Your task to perform on an android device: Open network settings Image 0: 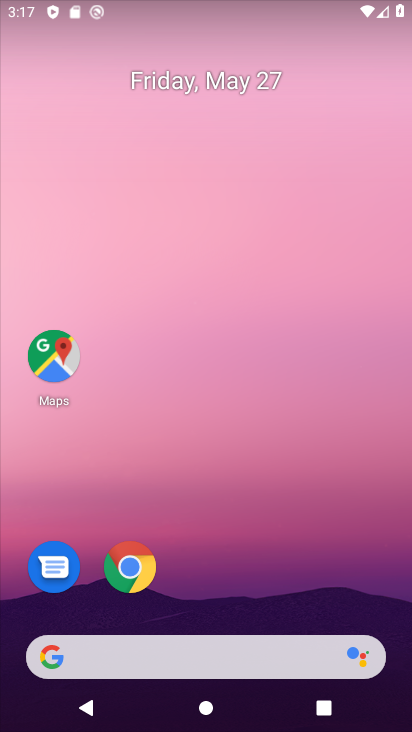
Step 0: drag from (379, 609) to (319, 70)
Your task to perform on an android device: Open network settings Image 1: 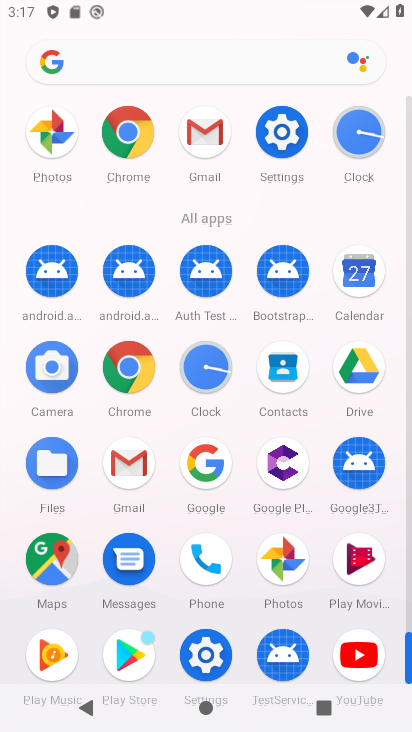
Step 1: click (203, 652)
Your task to perform on an android device: Open network settings Image 2: 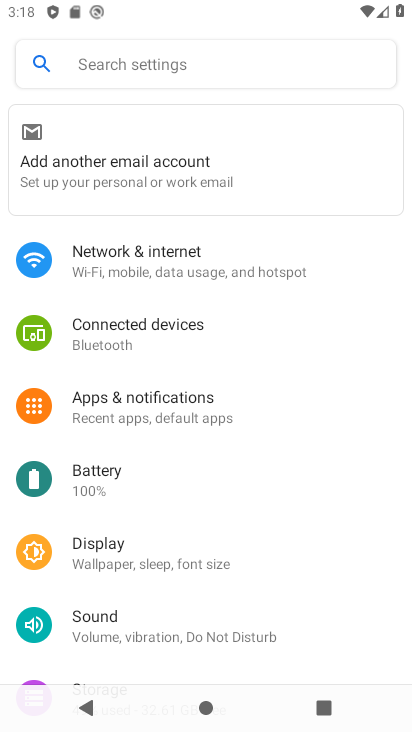
Step 2: click (117, 247)
Your task to perform on an android device: Open network settings Image 3: 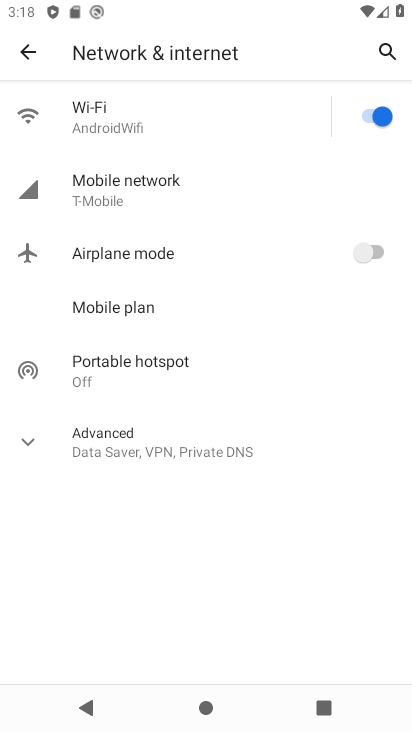
Step 3: click (96, 182)
Your task to perform on an android device: Open network settings Image 4: 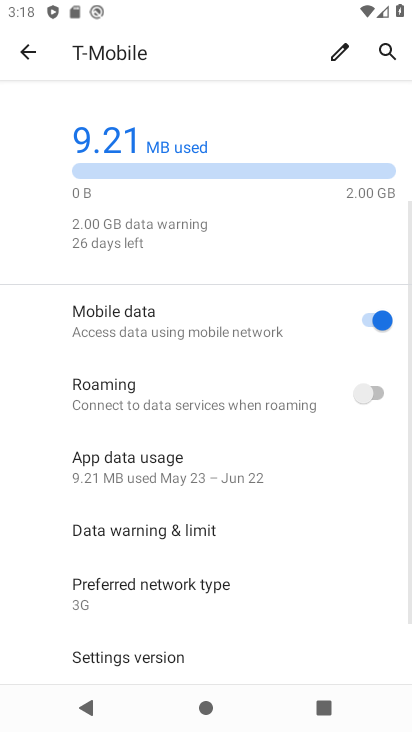
Step 4: drag from (286, 604) to (286, 221)
Your task to perform on an android device: Open network settings Image 5: 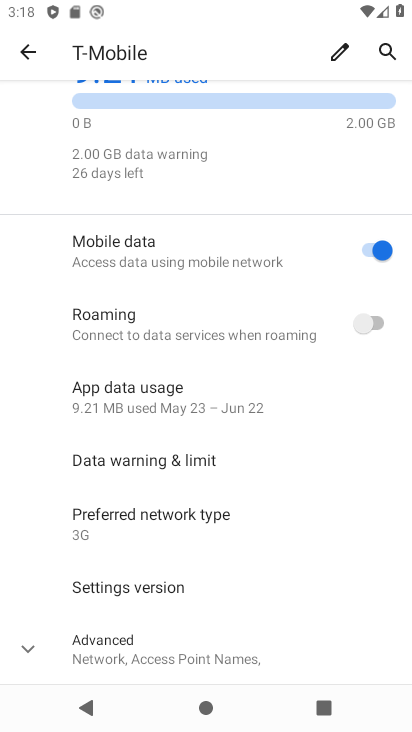
Step 5: click (31, 643)
Your task to perform on an android device: Open network settings Image 6: 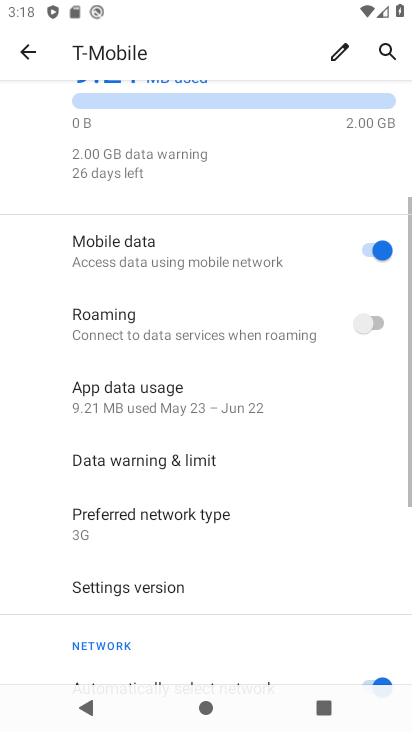
Step 6: task complete